Your task to perform on an android device: Open Chrome and go to settings Image 0: 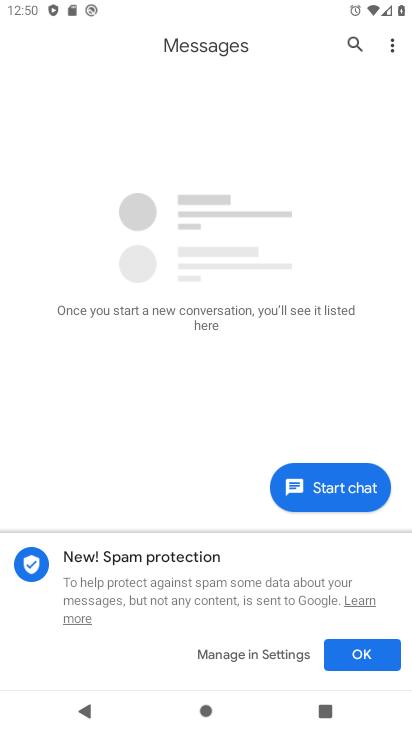
Step 0: press home button
Your task to perform on an android device: Open Chrome and go to settings Image 1: 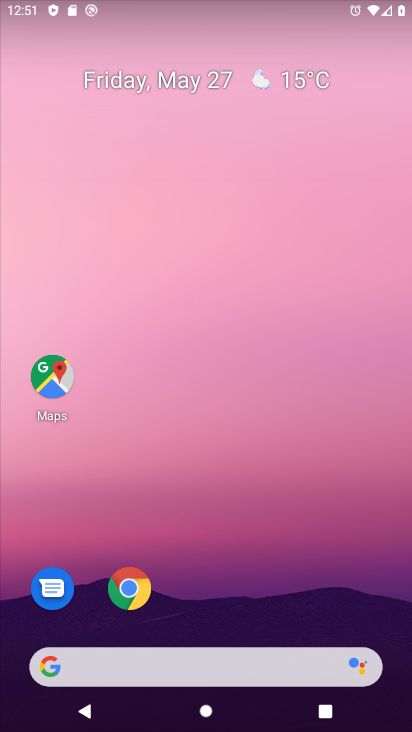
Step 1: click (130, 588)
Your task to perform on an android device: Open Chrome and go to settings Image 2: 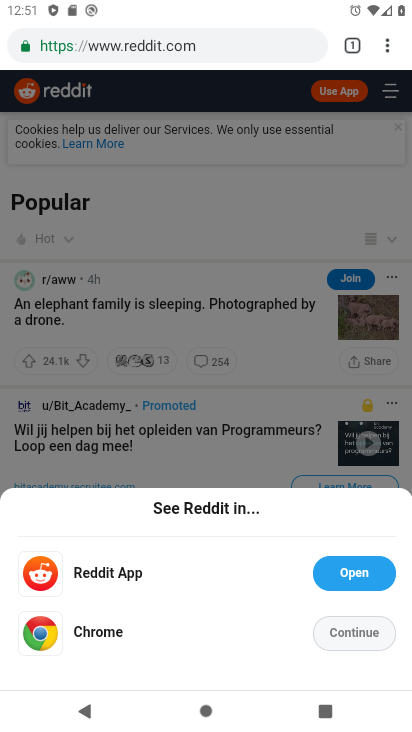
Step 2: click (388, 49)
Your task to perform on an android device: Open Chrome and go to settings Image 3: 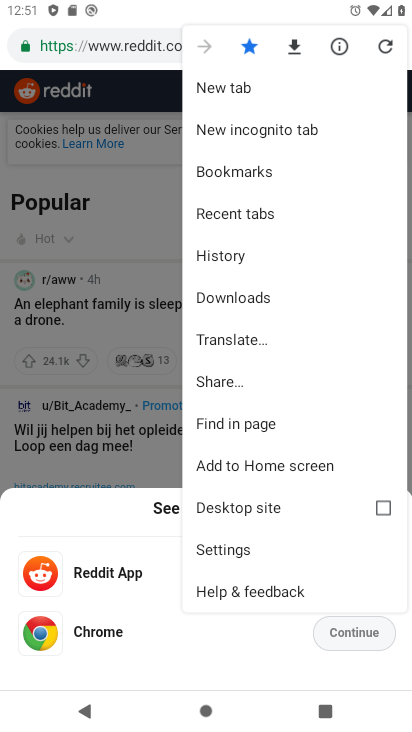
Step 3: click (221, 550)
Your task to perform on an android device: Open Chrome and go to settings Image 4: 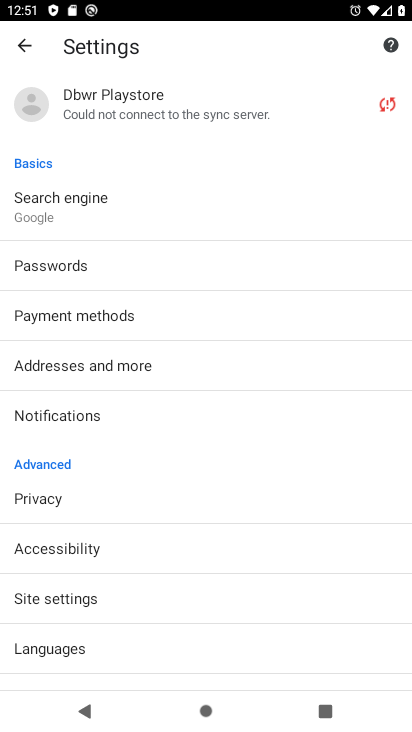
Step 4: task complete